Your task to perform on an android device: add a contact in the contacts app Image 0: 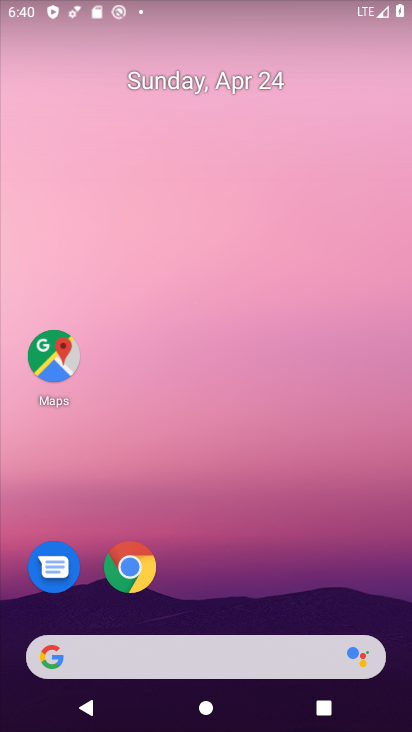
Step 0: drag from (328, 598) to (200, 86)
Your task to perform on an android device: add a contact in the contacts app Image 1: 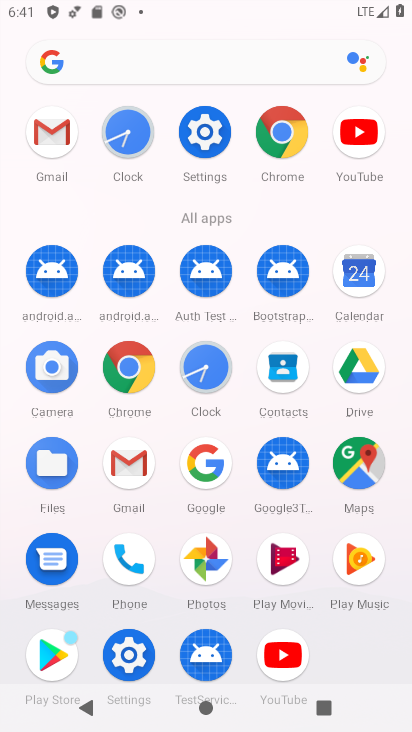
Step 1: click (275, 382)
Your task to perform on an android device: add a contact in the contacts app Image 2: 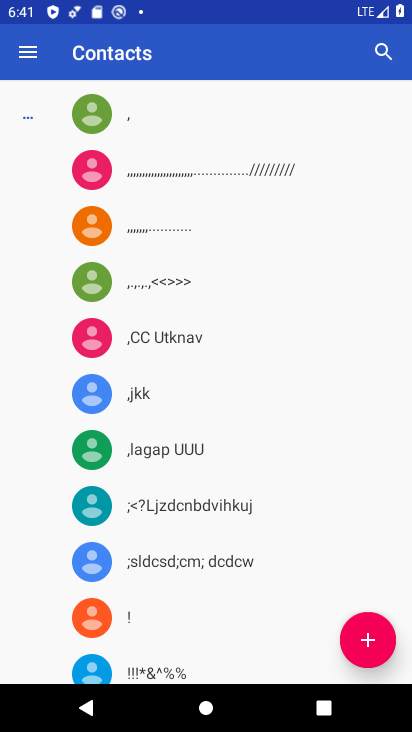
Step 2: click (373, 635)
Your task to perform on an android device: add a contact in the contacts app Image 3: 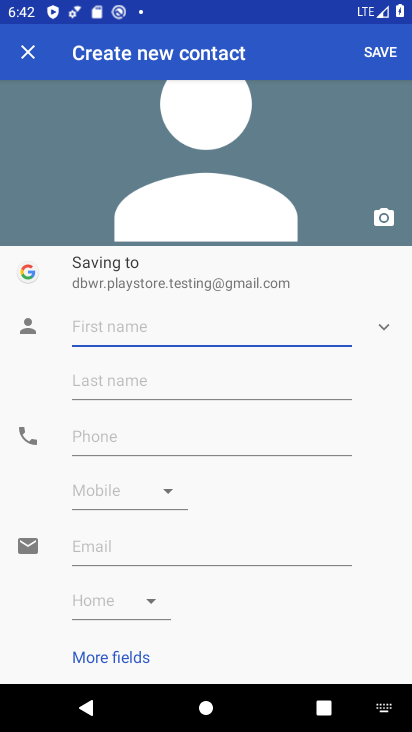
Step 3: type "reenu"
Your task to perform on an android device: add a contact in the contacts app Image 4: 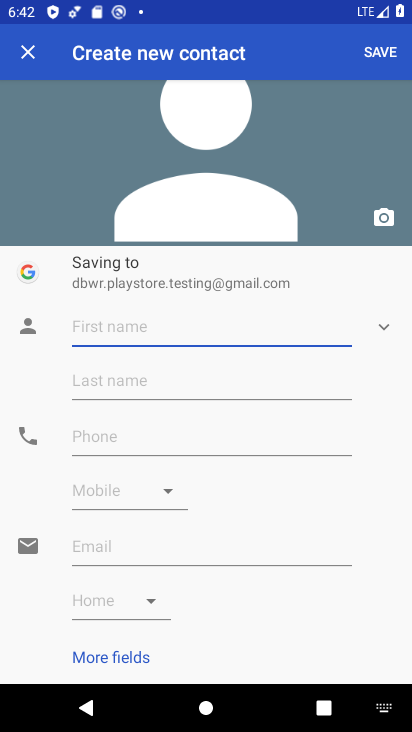
Step 4: click (379, 57)
Your task to perform on an android device: add a contact in the contacts app Image 5: 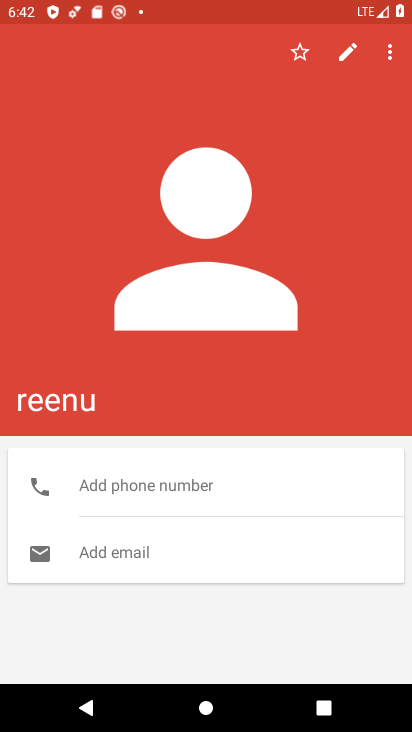
Step 5: task complete